Your task to perform on an android device: Go to Reddit.com Image 0: 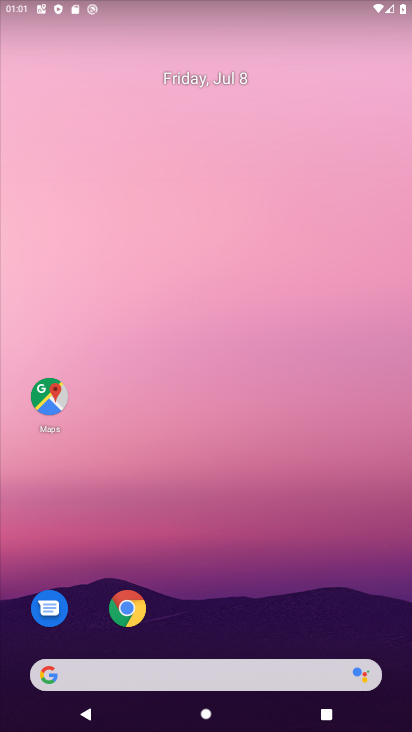
Step 0: drag from (280, 637) to (319, 220)
Your task to perform on an android device: Go to Reddit.com Image 1: 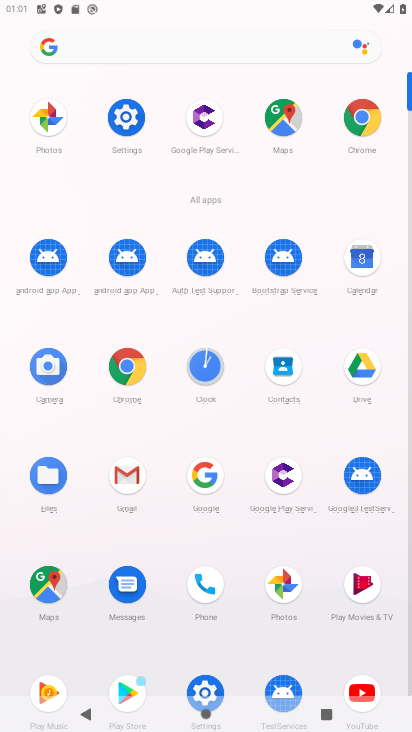
Step 1: click (362, 127)
Your task to perform on an android device: Go to Reddit.com Image 2: 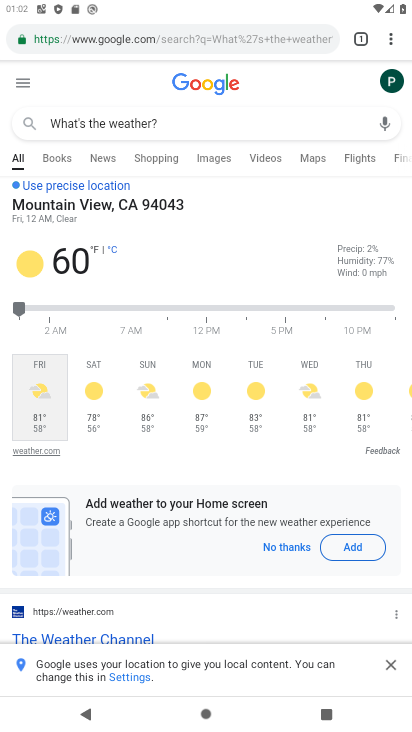
Step 2: click (196, 37)
Your task to perform on an android device: Go to Reddit.com Image 3: 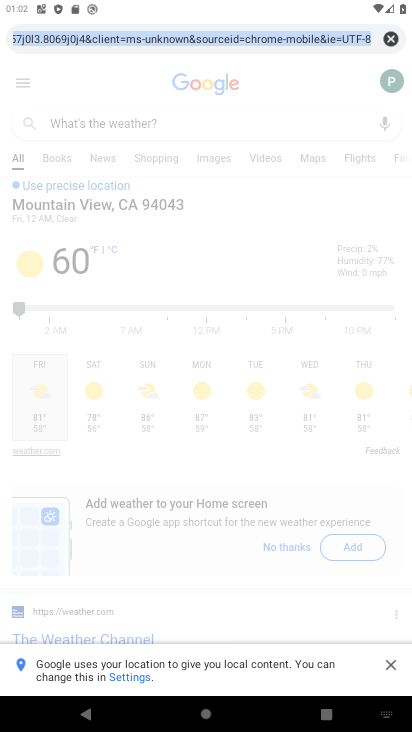
Step 3: type " Reddit.com"
Your task to perform on an android device: Go to Reddit.com Image 4: 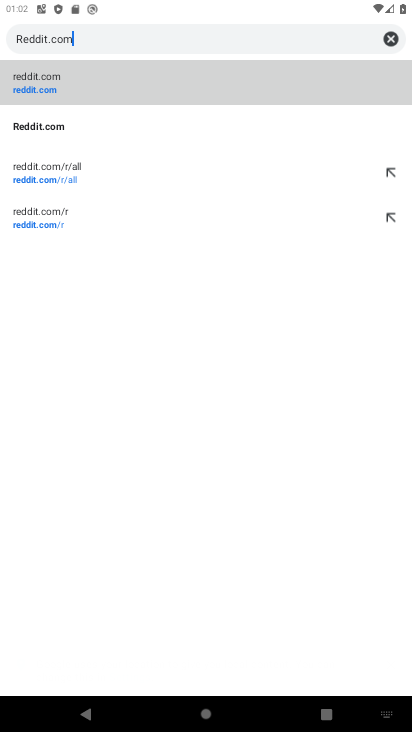
Step 4: click (62, 76)
Your task to perform on an android device: Go to Reddit.com Image 5: 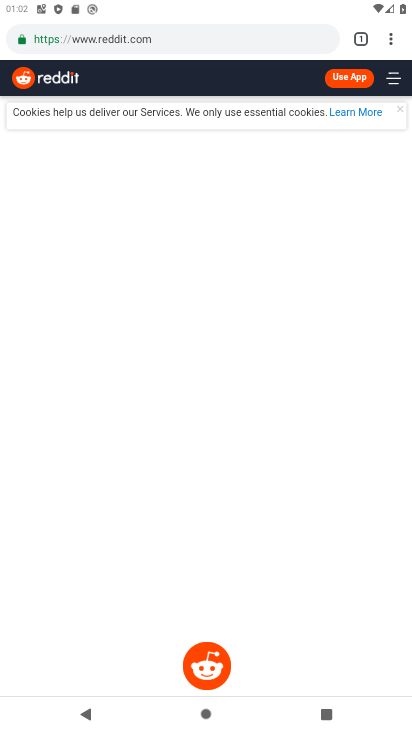
Step 5: task complete